Your task to perform on an android device: Open network settings Image 0: 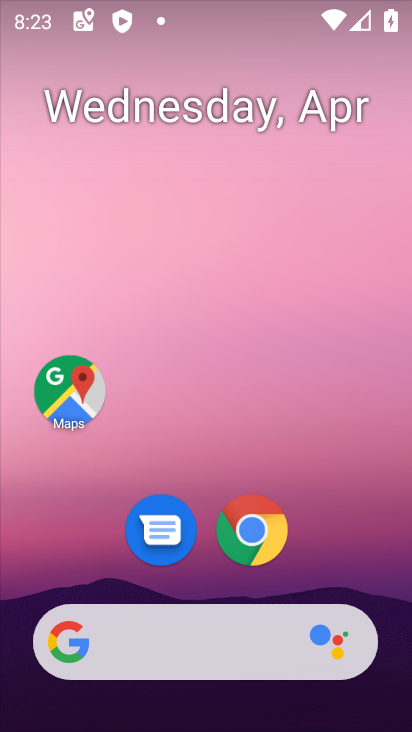
Step 0: drag from (365, 566) to (246, 100)
Your task to perform on an android device: Open network settings Image 1: 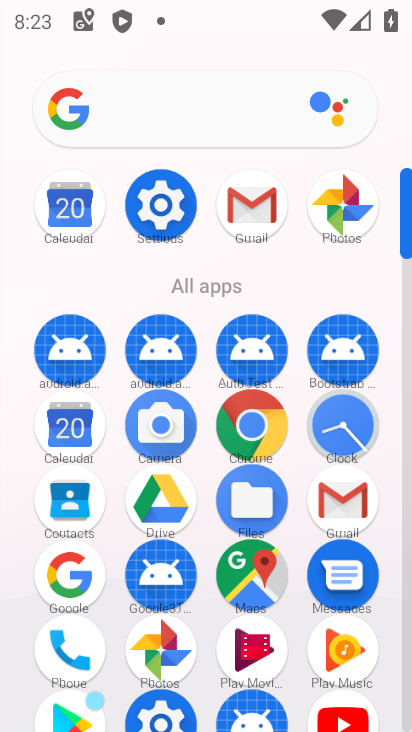
Step 1: click (175, 216)
Your task to perform on an android device: Open network settings Image 2: 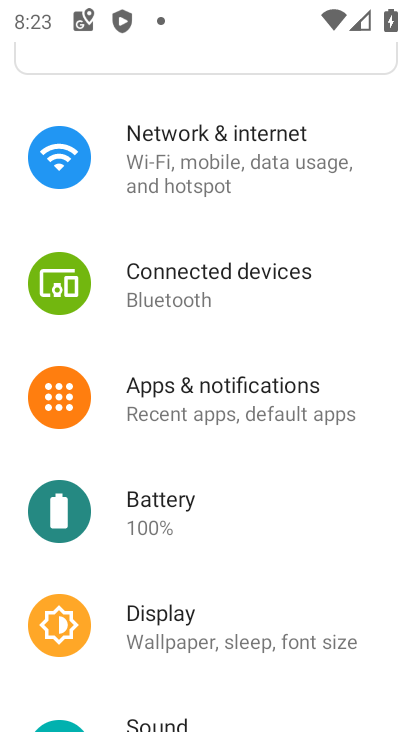
Step 2: click (197, 189)
Your task to perform on an android device: Open network settings Image 3: 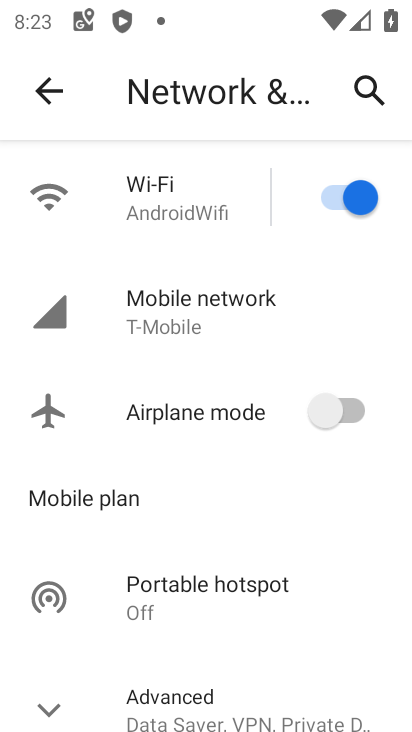
Step 3: click (299, 339)
Your task to perform on an android device: Open network settings Image 4: 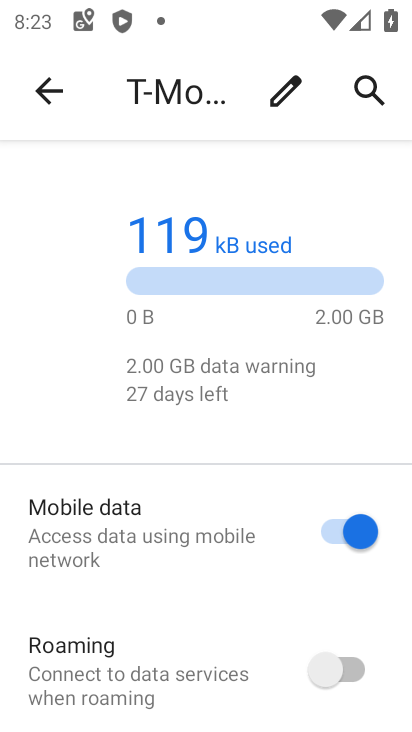
Step 4: task complete